Your task to perform on an android device: Open eBay Image 0: 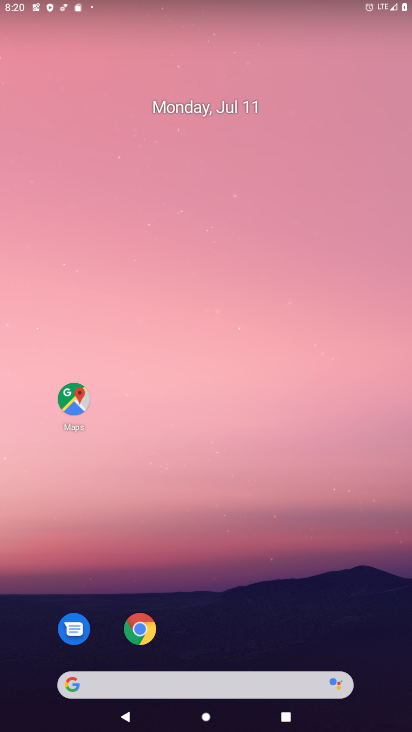
Step 0: drag from (201, 651) to (250, 85)
Your task to perform on an android device: Open eBay Image 1: 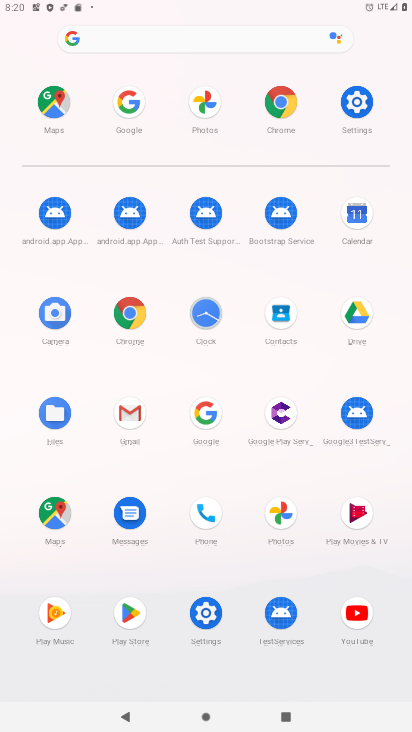
Step 1: click (203, 415)
Your task to perform on an android device: Open eBay Image 2: 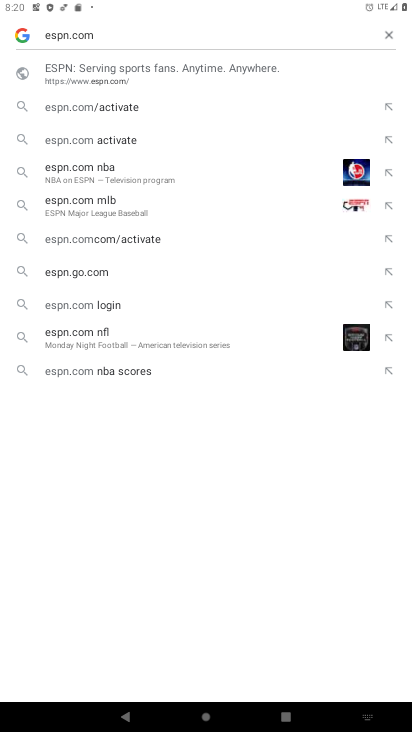
Step 2: click (388, 28)
Your task to perform on an android device: Open eBay Image 3: 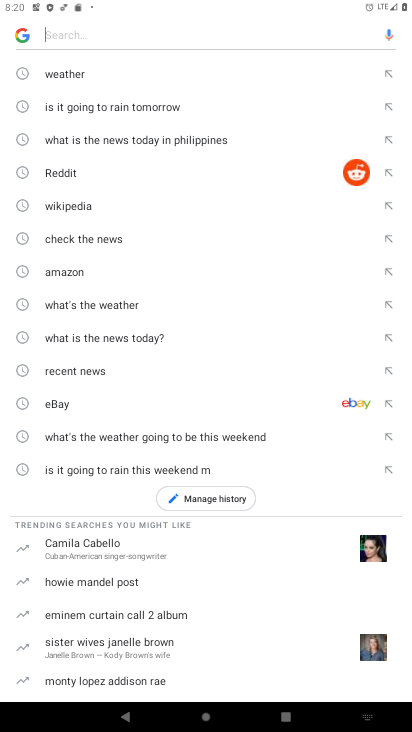
Step 3: click (198, 31)
Your task to perform on an android device: Open eBay Image 4: 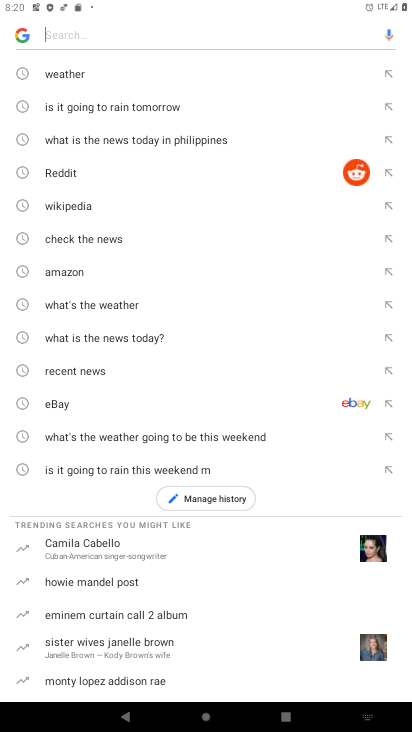
Step 4: type "ebay"
Your task to perform on an android device: Open eBay Image 5: 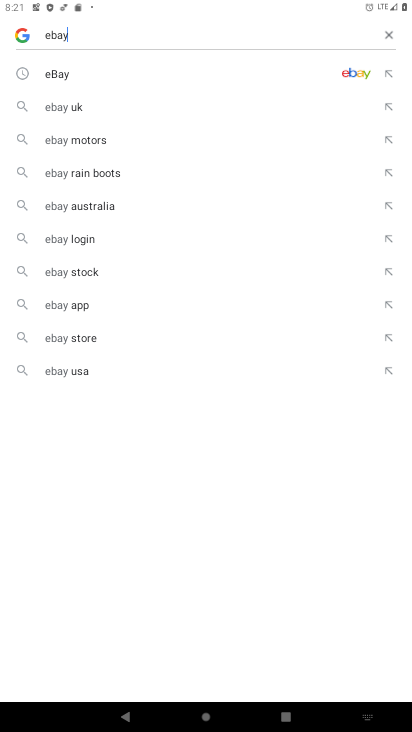
Step 5: click (185, 71)
Your task to perform on an android device: Open eBay Image 6: 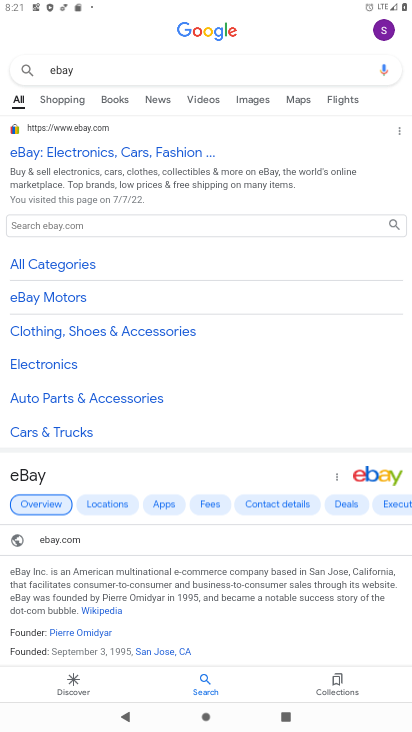
Step 6: click (89, 152)
Your task to perform on an android device: Open eBay Image 7: 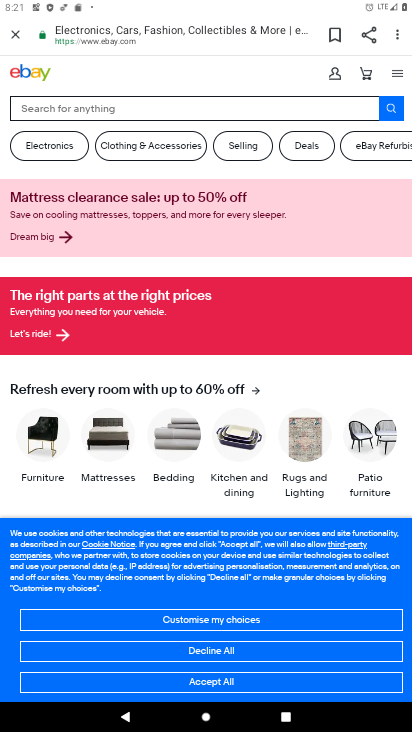
Step 7: task complete